Your task to perform on an android device: Open Google Chrome and click the shortcut for Amazon.com Image 0: 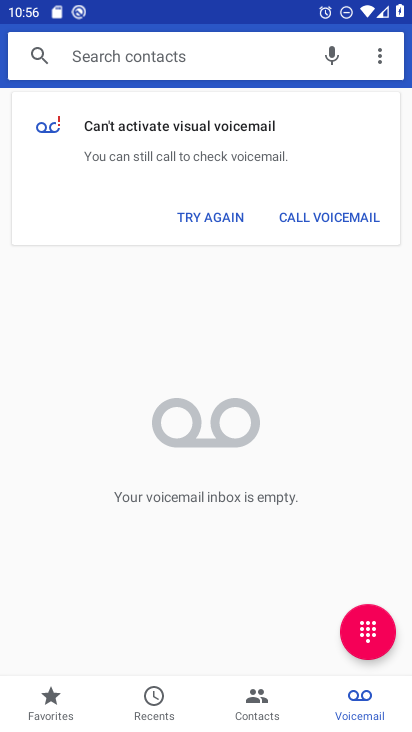
Step 0: press home button
Your task to perform on an android device: Open Google Chrome and click the shortcut for Amazon.com Image 1: 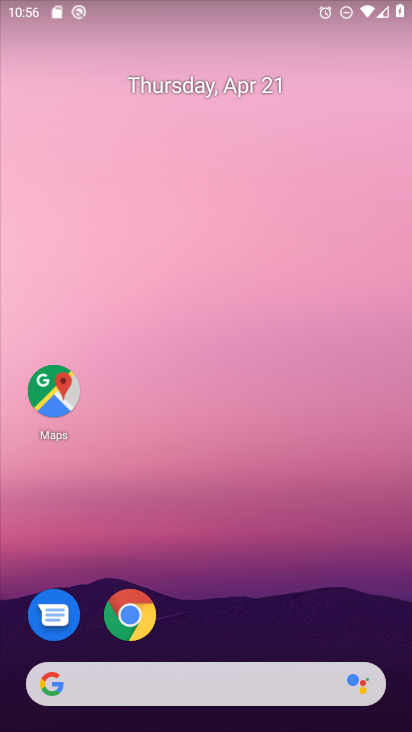
Step 1: click (128, 610)
Your task to perform on an android device: Open Google Chrome and click the shortcut for Amazon.com Image 2: 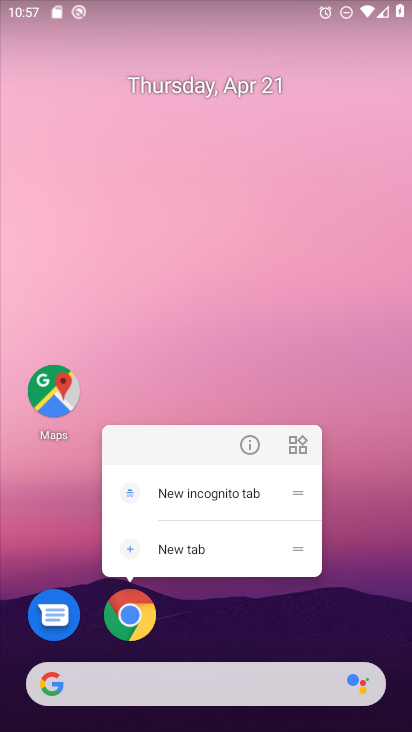
Step 2: click (335, 605)
Your task to perform on an android device: Open Google Chrome and click the shortcut for Amazon.com Image 3: 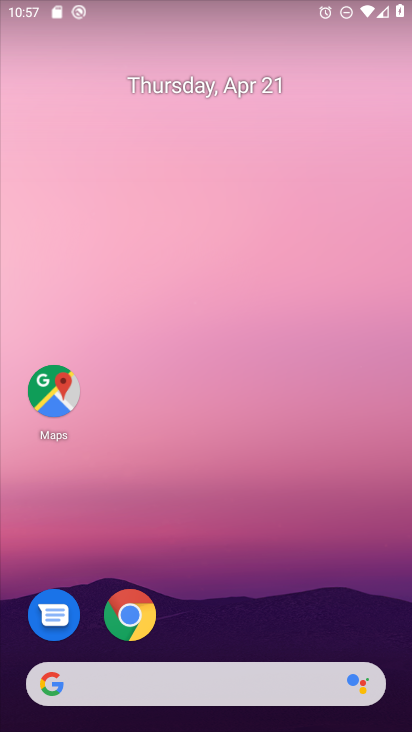
Step 3: drag from (336, 627) to (327, 106)
Your task to perform on an android device: Open Google Chrome and click the shortcut for Amazon.com Image 4: 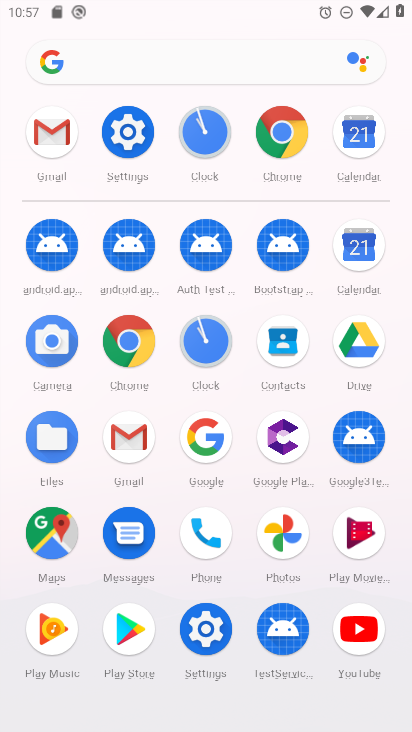
Step 4: click (138, 332)
Your task to perform on an android device: Open Google Chrome and click the shortcut for Amazon.com Image 5: 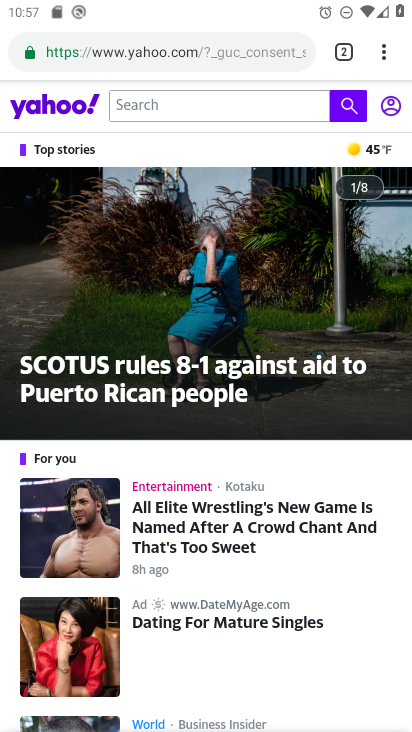
Step 5: click (349, 37)
Your task to perform on an android device: Open Google Chrome and click the shortcut for Amazon.com Image 6: 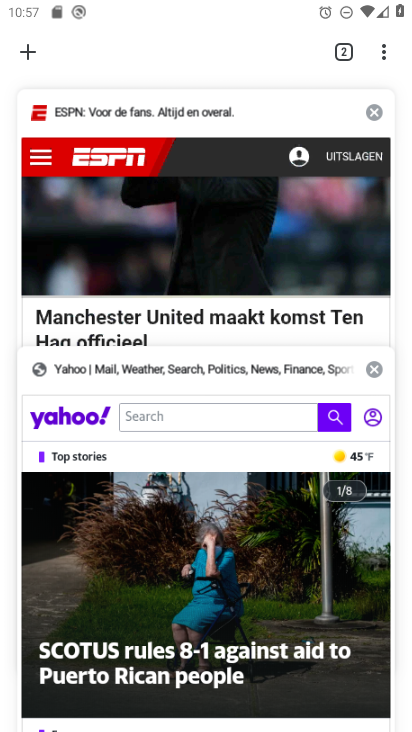
Step 6: click (26, 55)
Your task to perform on an android device: Open Google Chrome and click the shortcut for Amazon.com Image 7: 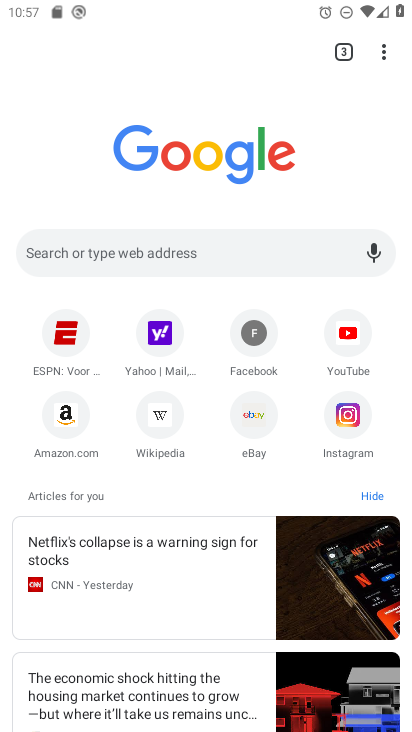
Step 7: click (57, 416)
Your task to perform on an android device: Open Google Chrome and click the shortcut for Amazon.com Image 8: 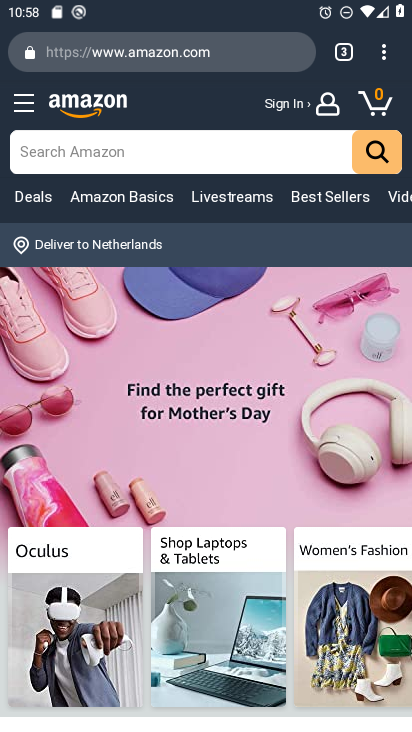
Step 8: task complete